Your task to perform on an android device: What's on my calendar tomorrow? Image 0: 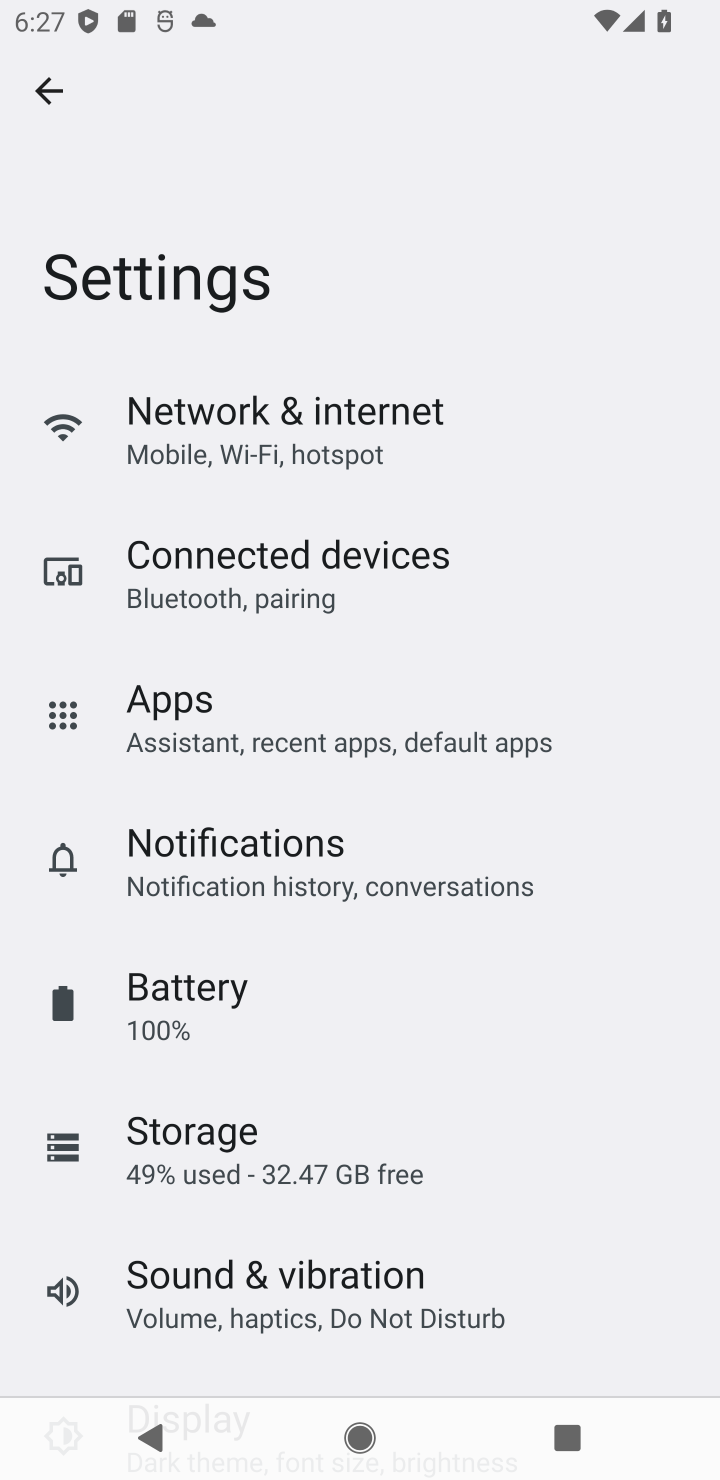
Step 0: press home button
Your task to perform on an android device: What's on my calendar tomorrow? Image 1: 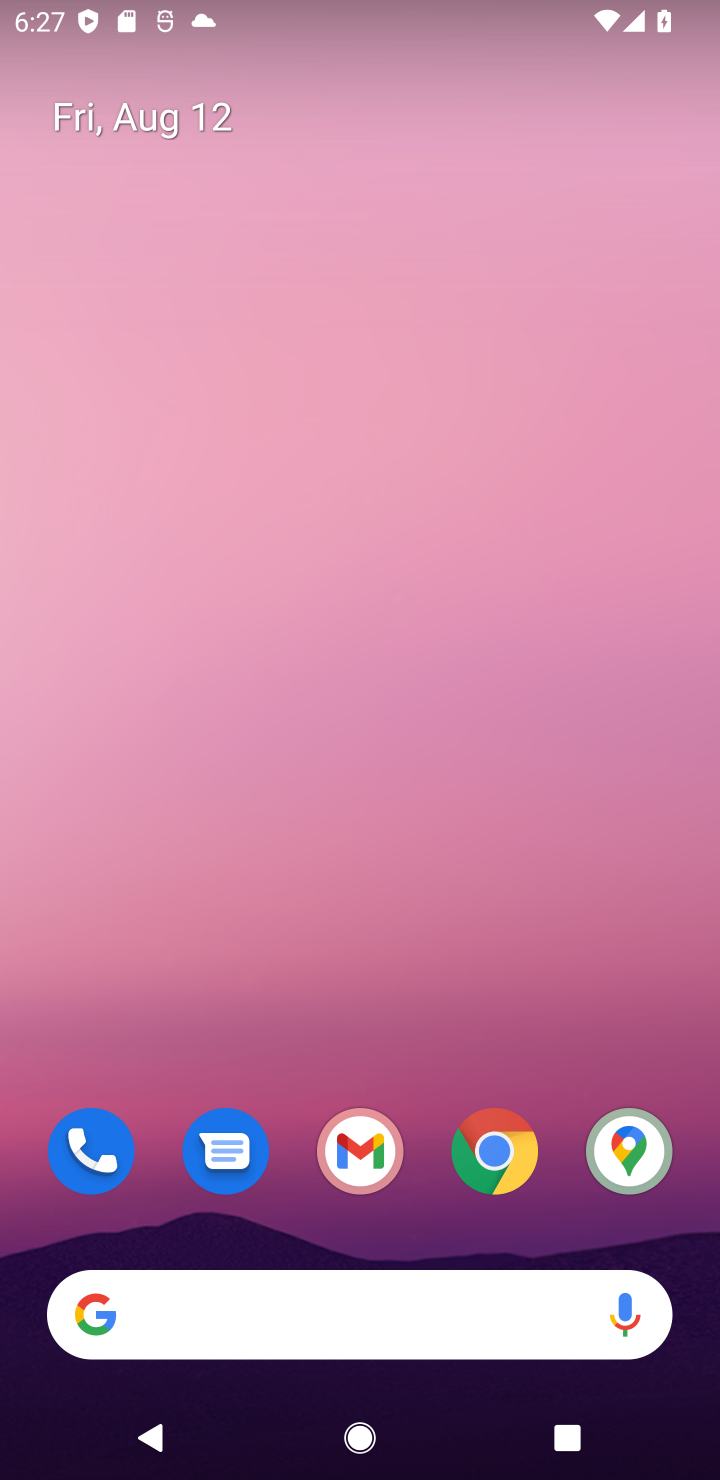
Step 1: drag from (476, 555) to (470, 12)
Your task to perform on an android device: What's on my calendar tomorrow? Image 2: 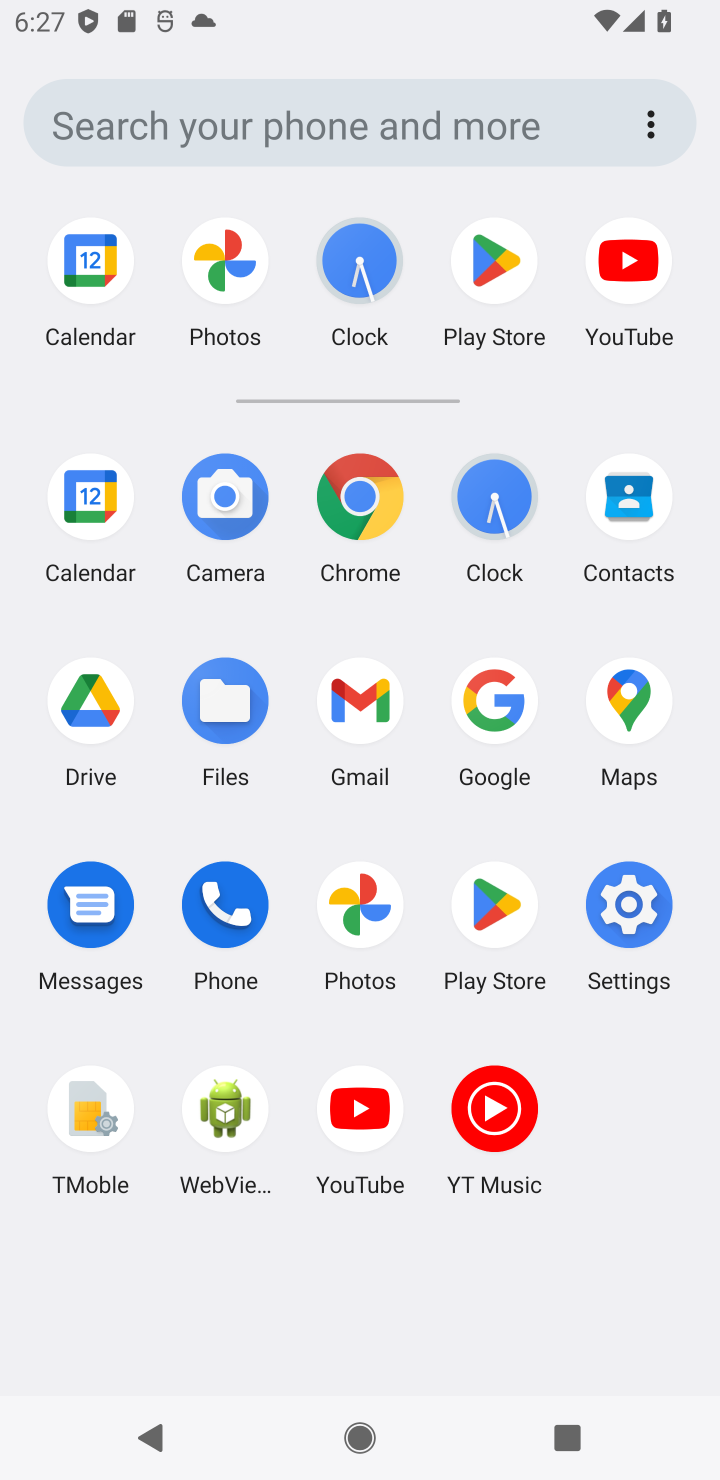
Step 2: click (77, 487)
Your task to perform on an android device: What's on my calendar tomorrow? Image 3: 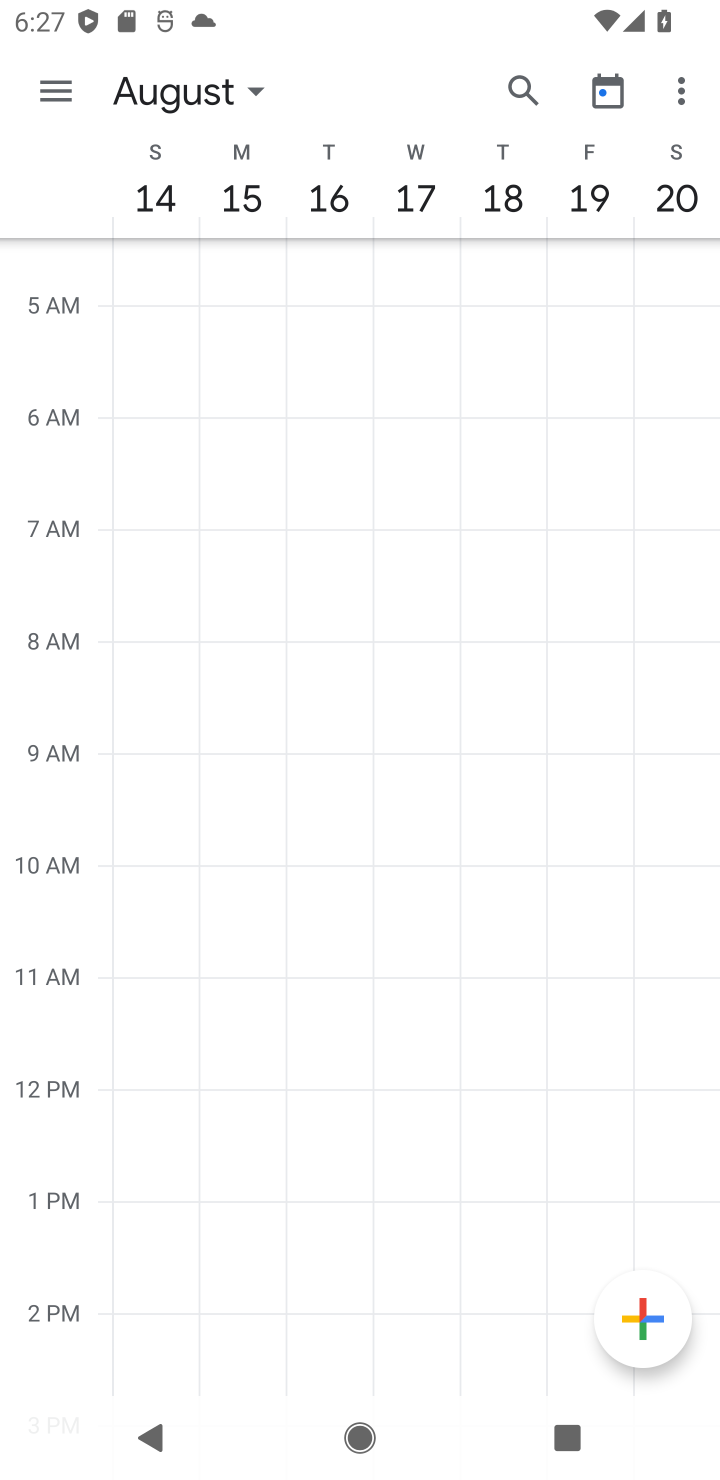
Step 3: click (186, 88)
Your task to perform on an android device: What's on my calendar tomorrow? Image 4: 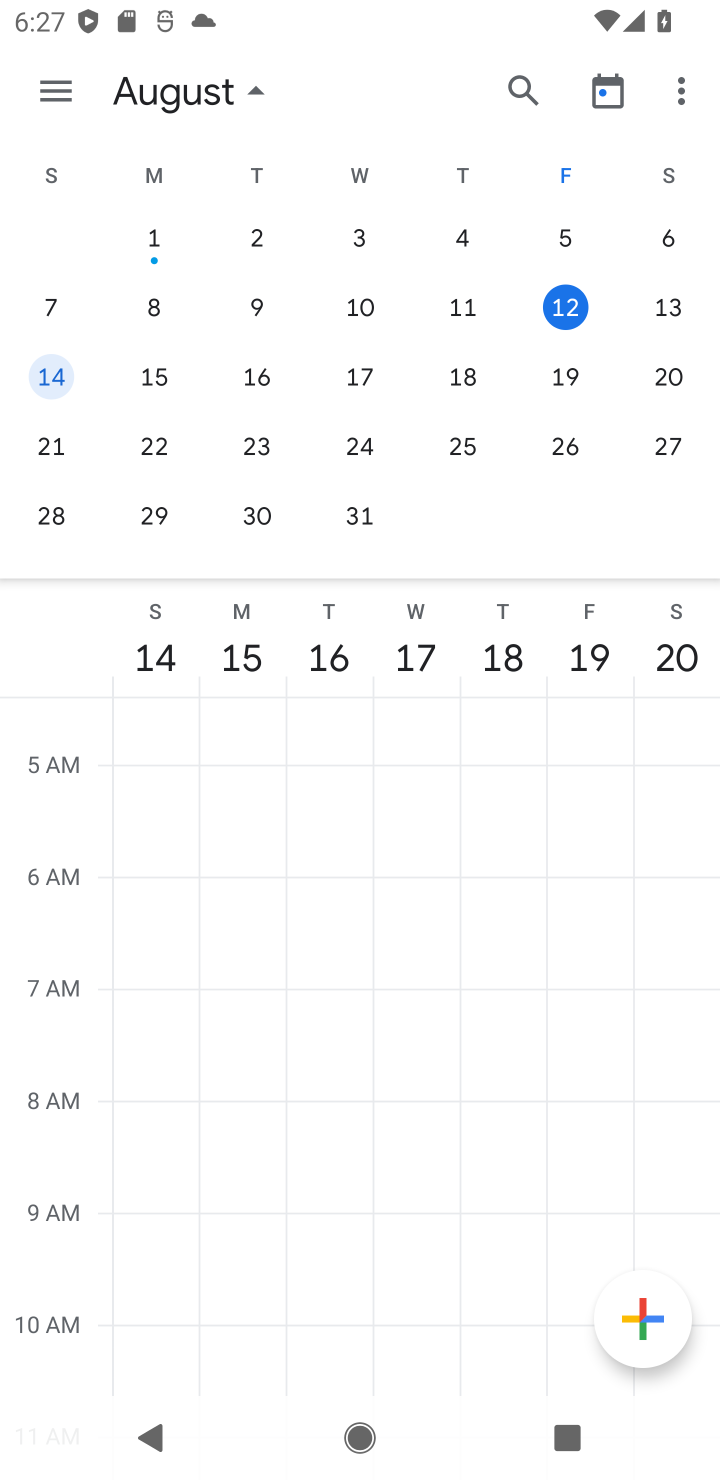
Step 4: click (657, 302)
Your task to perform on an android device: What's on my calendar tomorrow? Image 5: 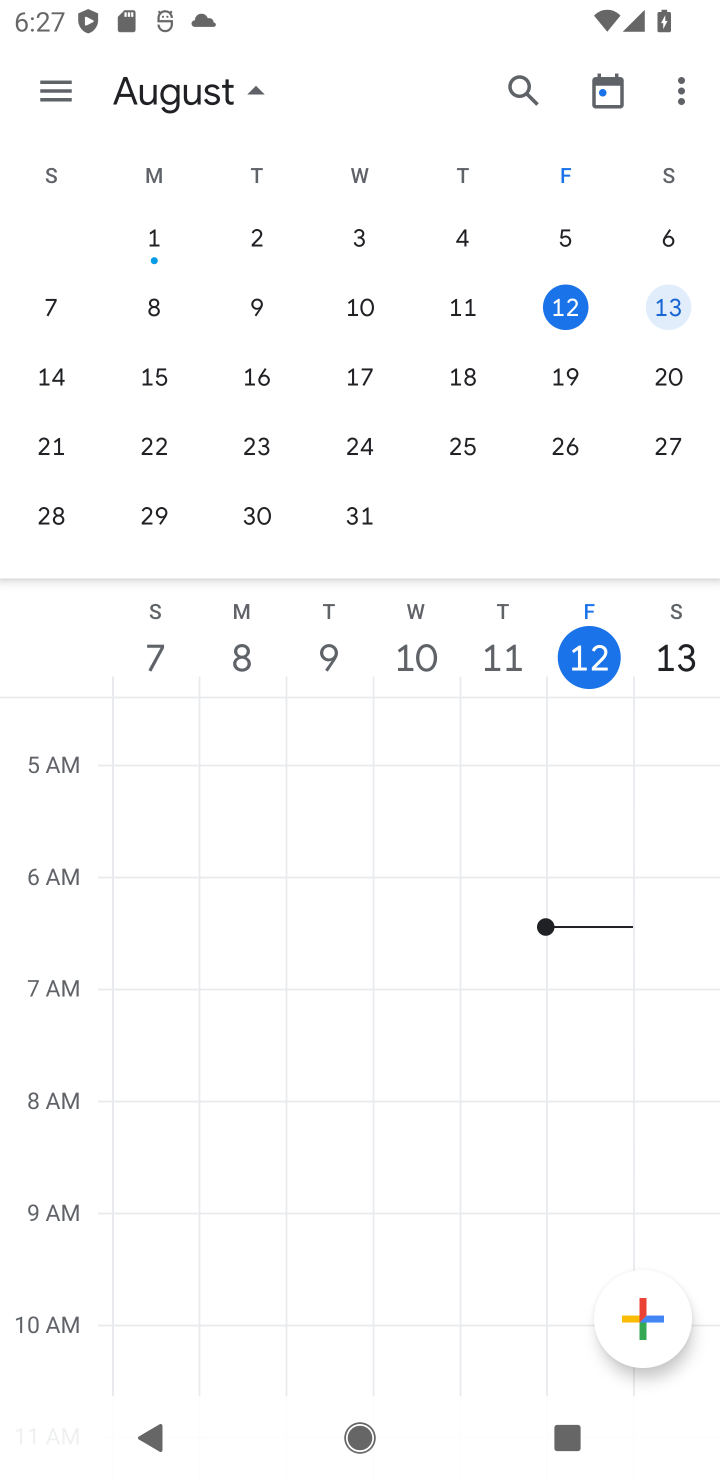
Step 5: click (683, 648)
Your task to perform on an android device: What's on my calendar tomorrow? Image 6: 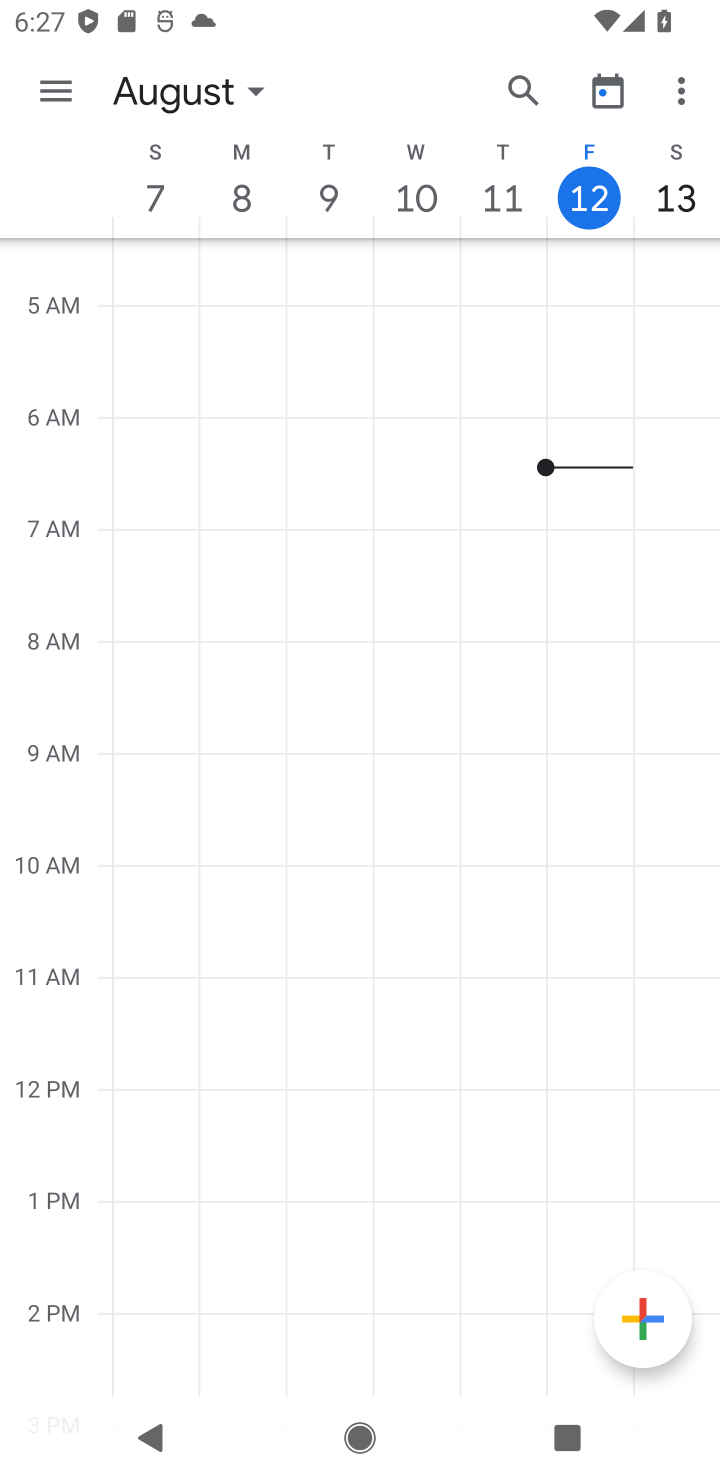
Step 6: click (687, 204)
Your task to perform on an android device: What's on my calendar tomorrow? Image 7: 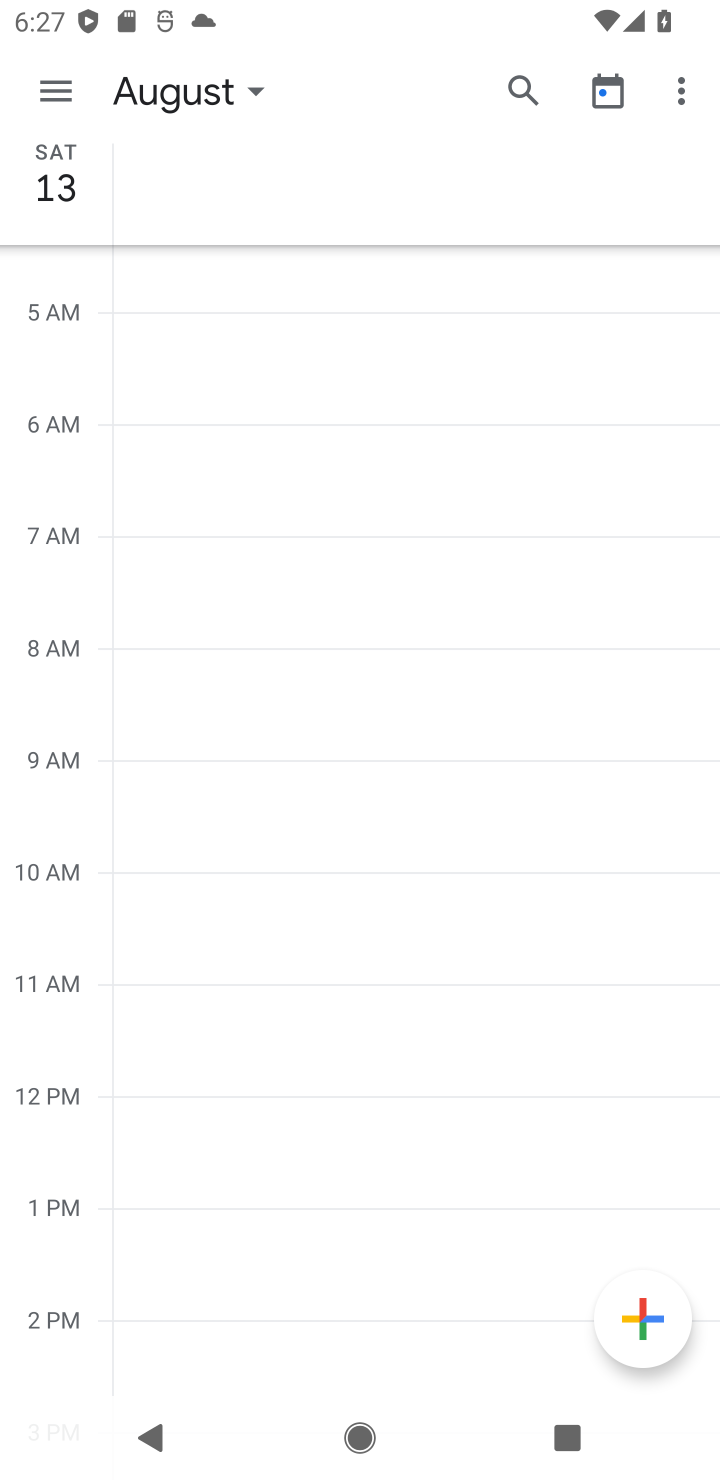
Step 7: task complete